Your task to perform on an android device: Open Google Maps Image 0: 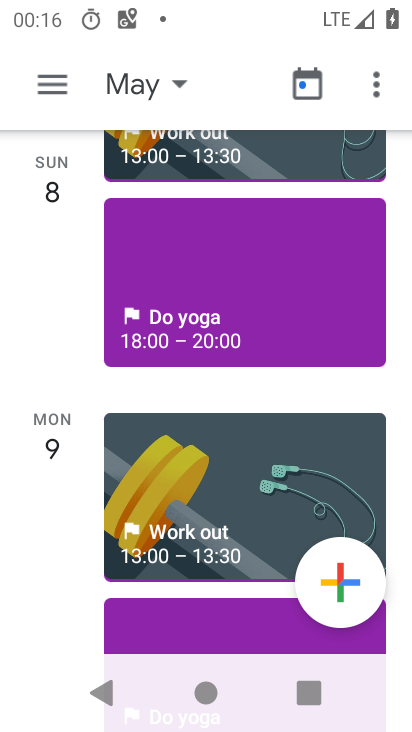
Step 0: press home button
Your task to perform on an android device: Open Google Maps Image 1: 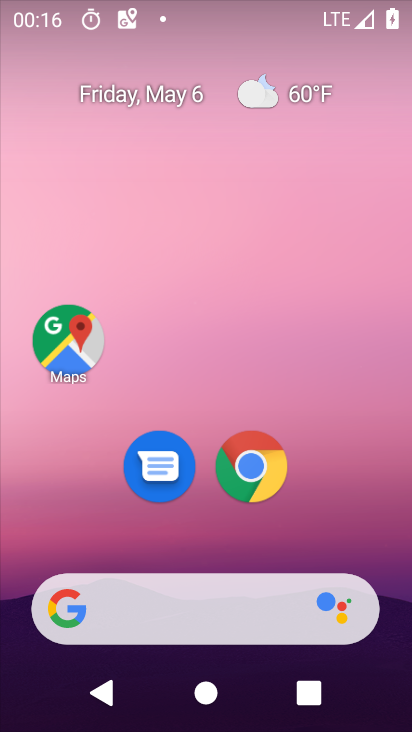
Step 1: click (77, 339)
Your task to perform on an android device: Open Google Maps Image 2: 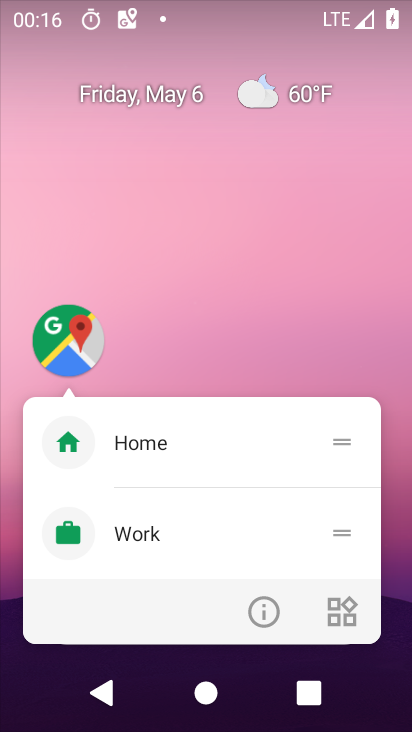
Step 2: click (59, 349)
Your task to perform on an android device: Open Google Maps Image 3: 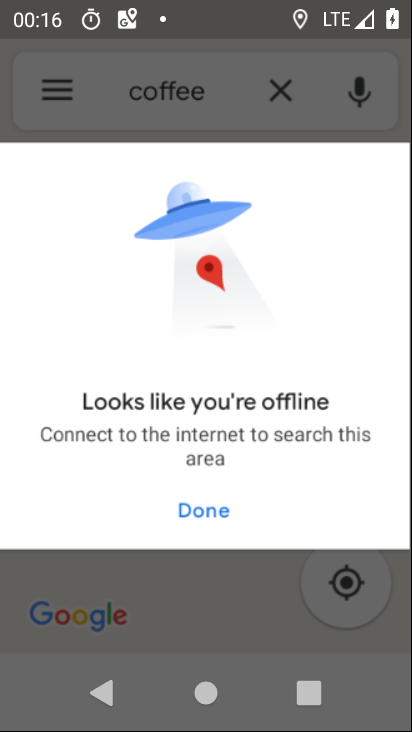
Step 3: click (216, 514)
Your task to perform on an android device: Open Google Maps Image 4: 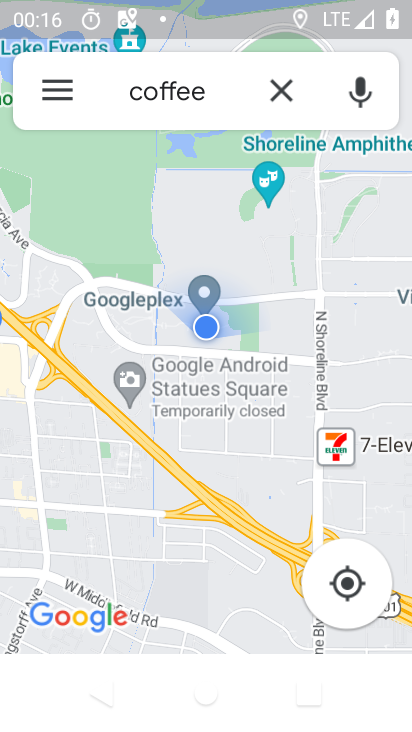
Step 4: click (289, 94)
Your task to perform on an android device: Open Google Maps Image 5: 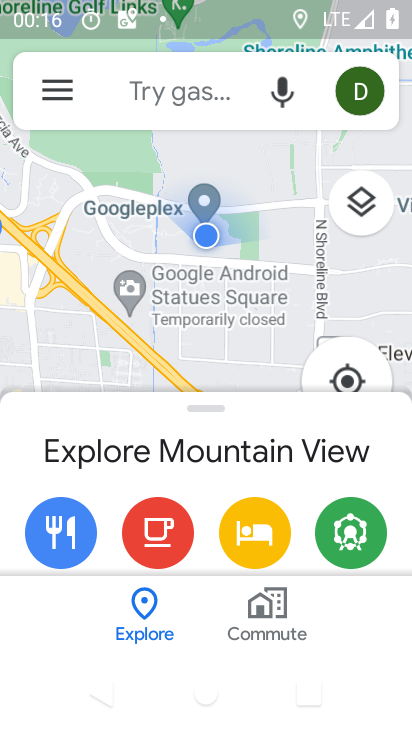
Step 5: task complete